Your task to perform on an android device: show emergency info Image 0: 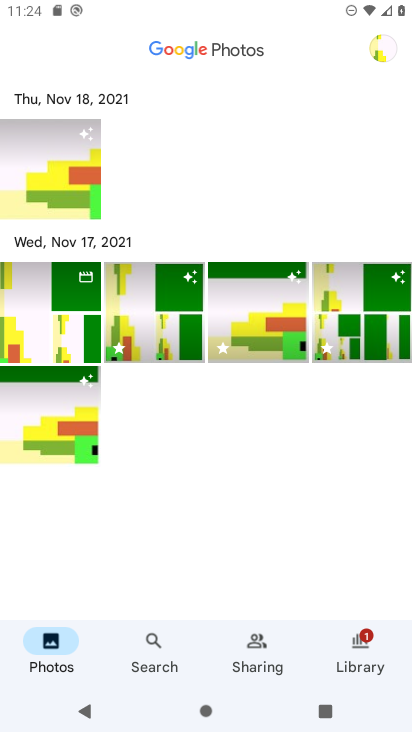
Step 0: press home button
Your task to perform on an android device: show emergency info Image 1: 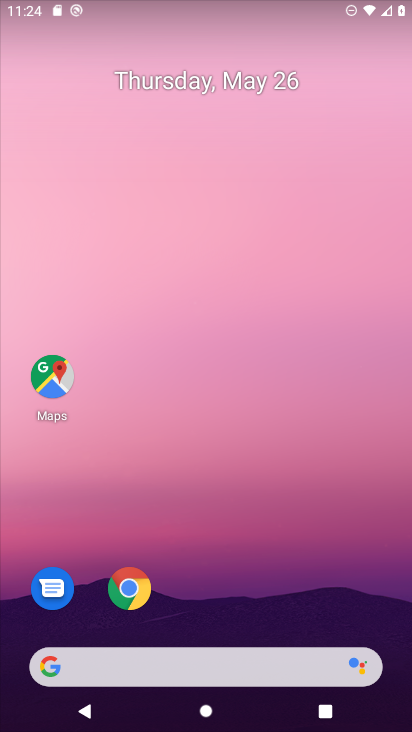
Step 1: drag from (380, 625) to (308, 55)
Your task to perform on an android device: show emergency info Image 2: 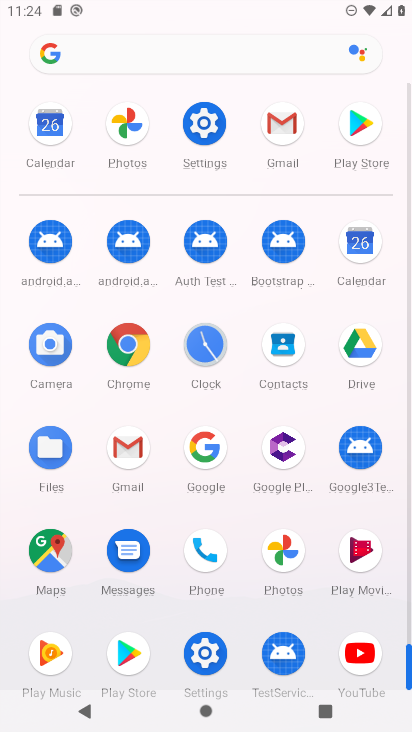
Step 2: click (205, 653)
Your task to perform on an android device: show emergency info Image 3: 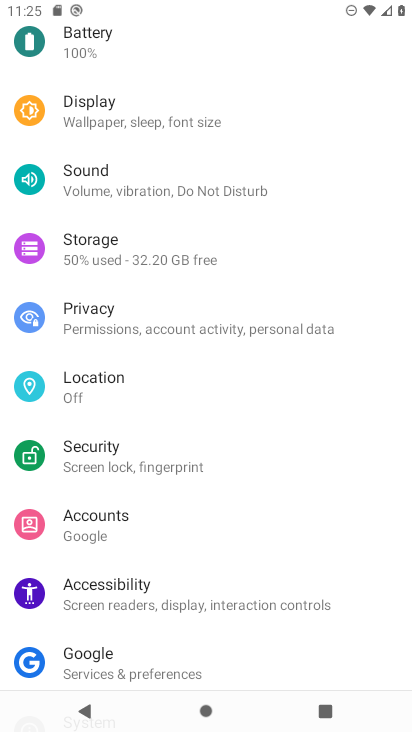
Step 3: drag from (335, 639) to (332, 213)
Your task to perform on an android device: show emergency info Image 4: 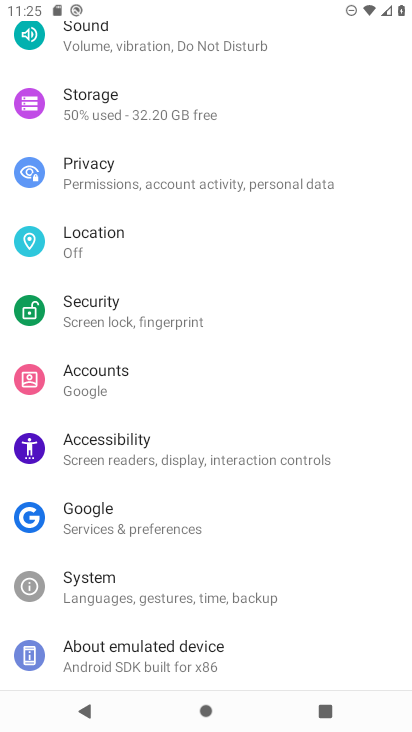
Step 4: click (142, 649)
Your task to perform on an android device: show emergency info Image 5: 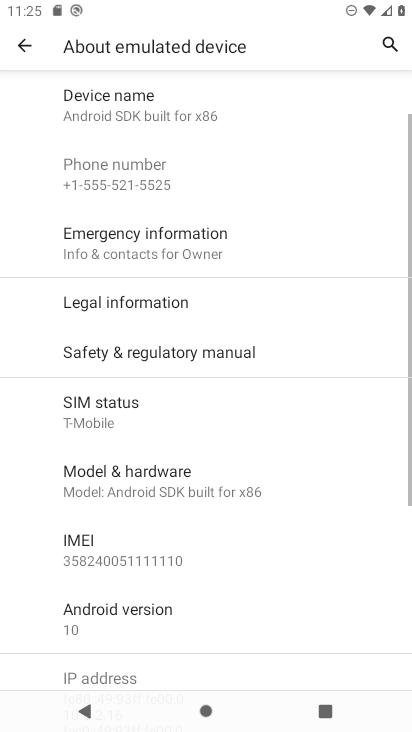
Step 5: click (142, 232)
Your task to perform on an android device: show emergency info Image 6: 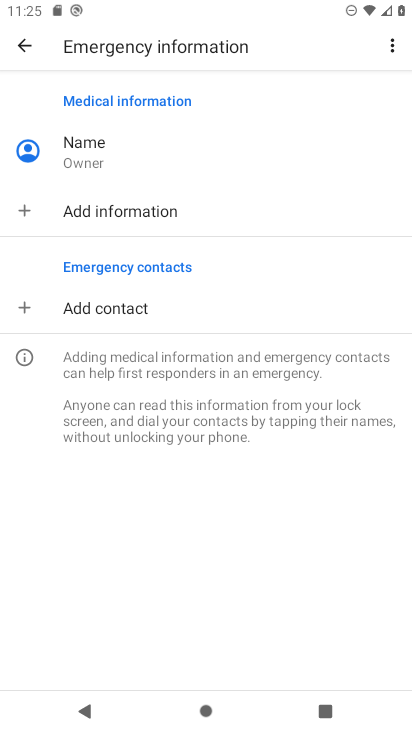
Step 6: task complete